Your task to perform on an android device: Clear all items from cart on ebay.com. Add "usb-b" to the cart on ebay.com, then select checkout. Image 0: 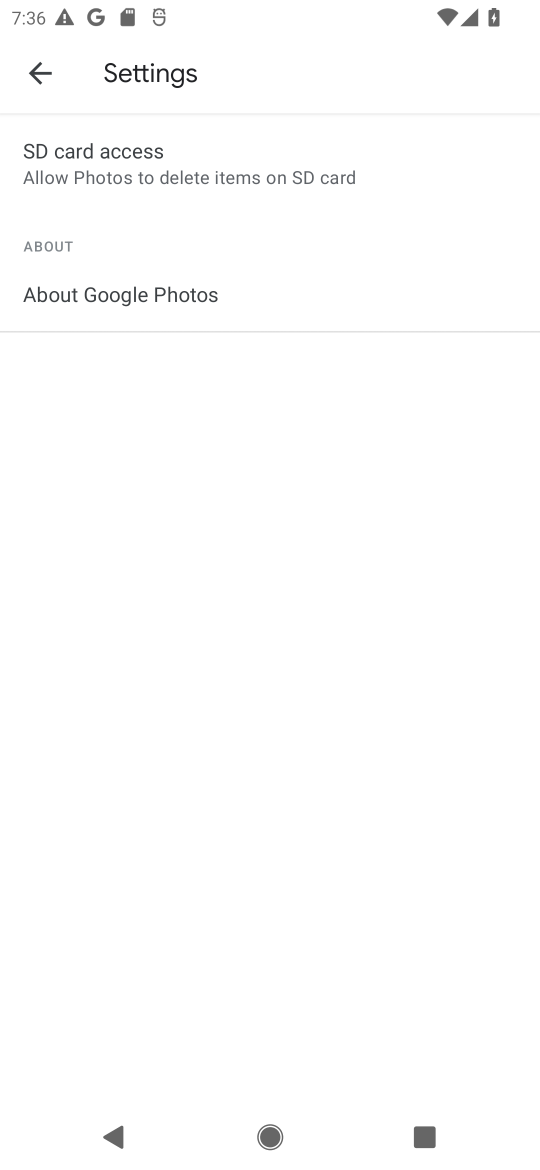
Step 0: press home button
Your task to perform on an android device: Clear all items from cart on ebay.com. Add "usb-b" to the cart on ebay.com, then select checkout. Image 1: 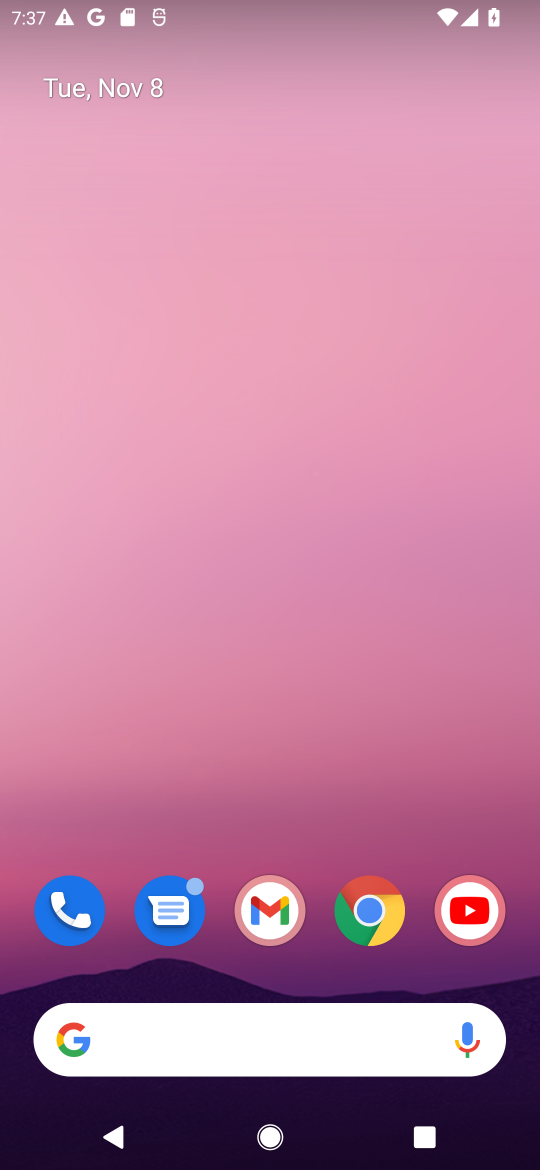
Step 1: click (378, 931)
Your task to perform on an android device: Clear all items from cart on ebay.com. Add "usb-b" to the cart on ebay.com, then select checkout. Image 2: 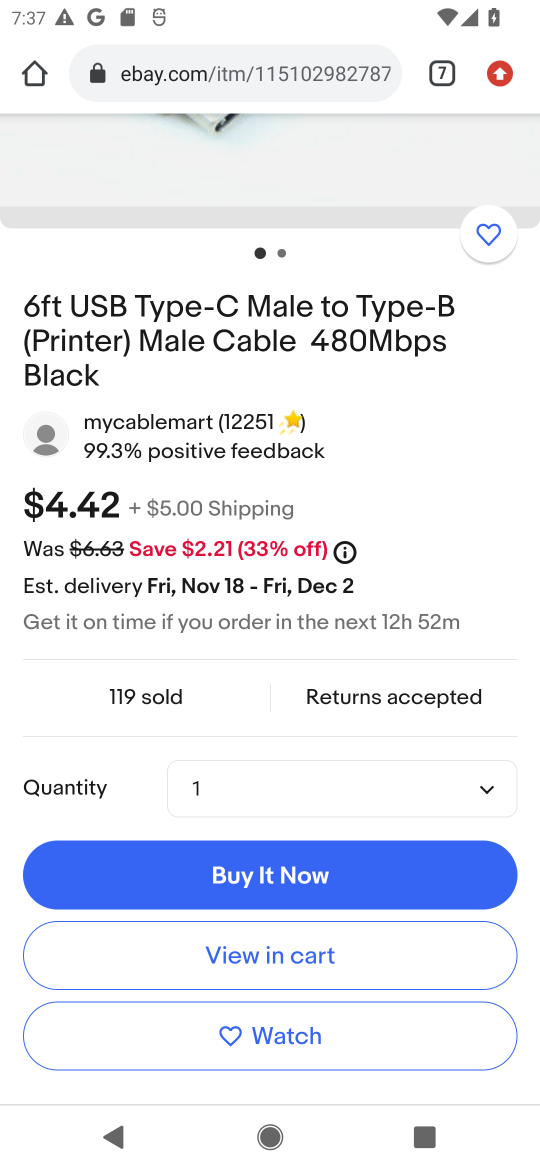
Step 2: drag from (336, 262) to (317, 791)
Your task to perform on an android device: Clear all items from cart on ebay.com. Add "usb-b" to the cart on ebay.com, then select checkout. Image 3: 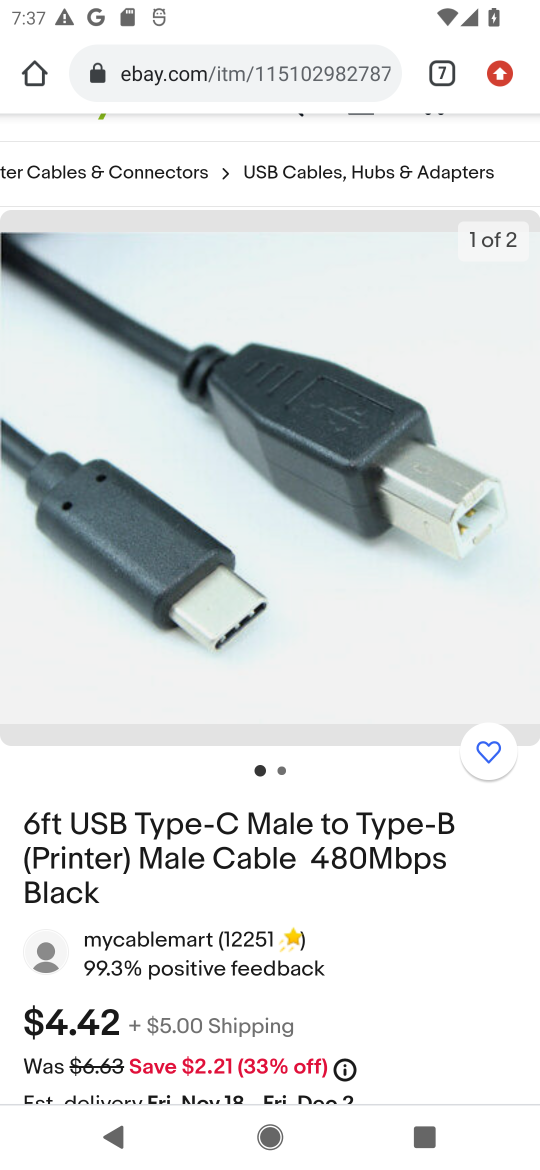
Step 3: drag from (361, 272) to (365, 822)
Your task to perform on an android device: Clear all items from cart on ebay.com. Add "usb-b" to the cart on ebay.com, then select checkout. Image 4: 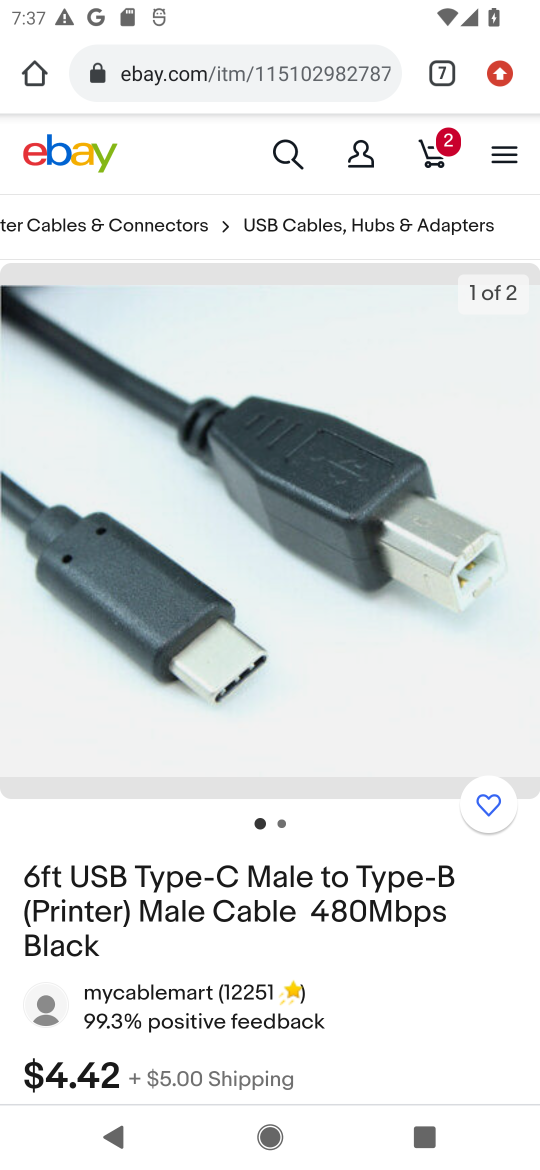
Step 4: click (294, 152)
Your task to perform on an android device: Clear all items from cart on ebay.com. Add "usb-b" to the cart on ebay.com, then select checkout. Image 5: 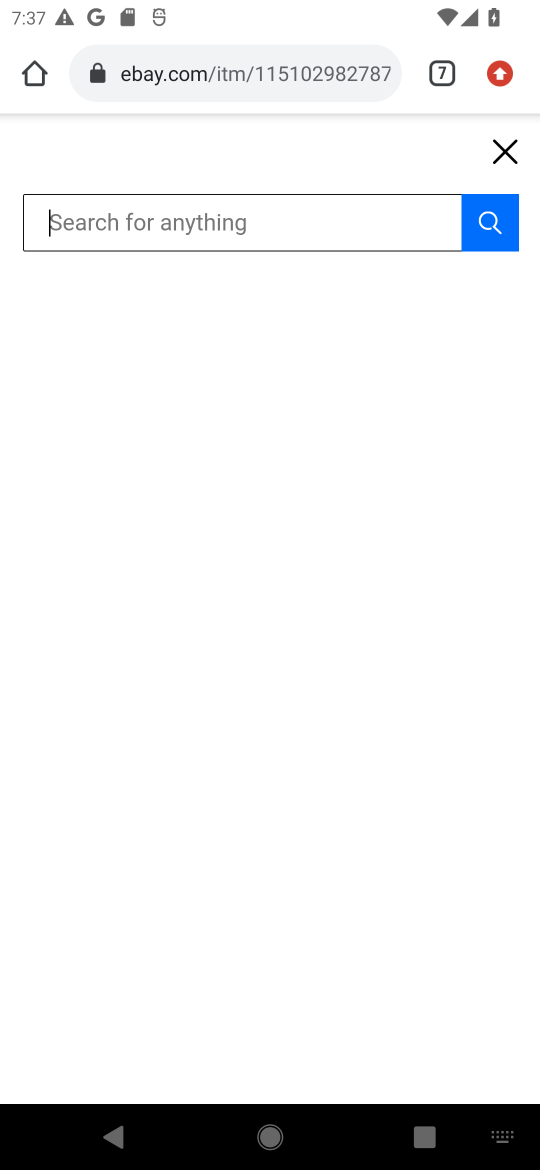
Step 5: type "usb-b"
Your task to perform on an android device: Clear all items from cart on ebay.com. Add "usb-b" to the cart on ebay.com, then select checkout. Image 6: 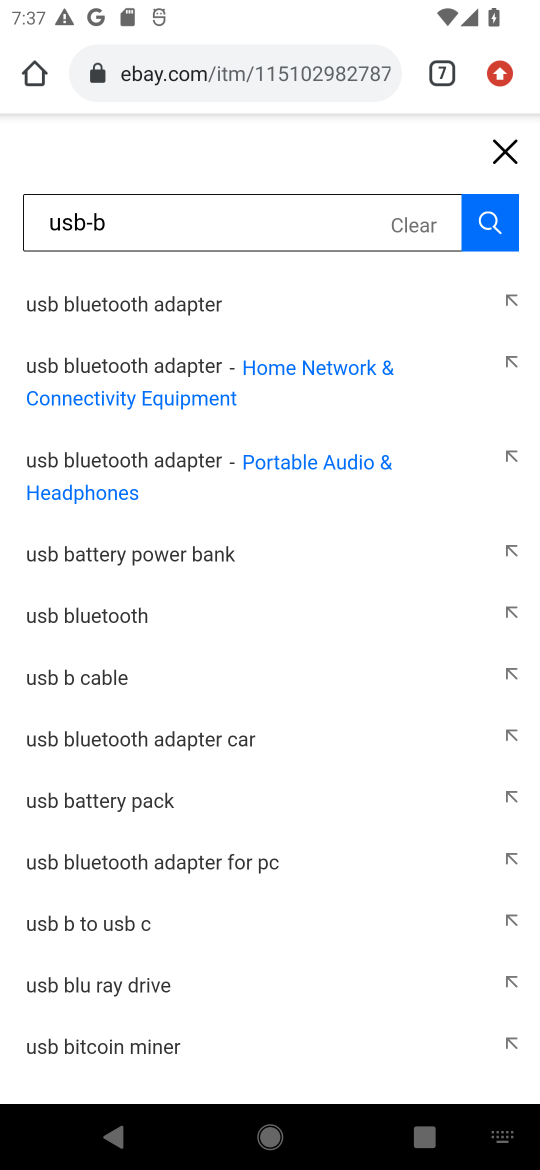
Step 6: click (103, 361)
Your task to perform on an android device: Clear all items from cart on ebay.com. Add "usb-b" to the cart on ebay.com, then select checkout. Image 7: 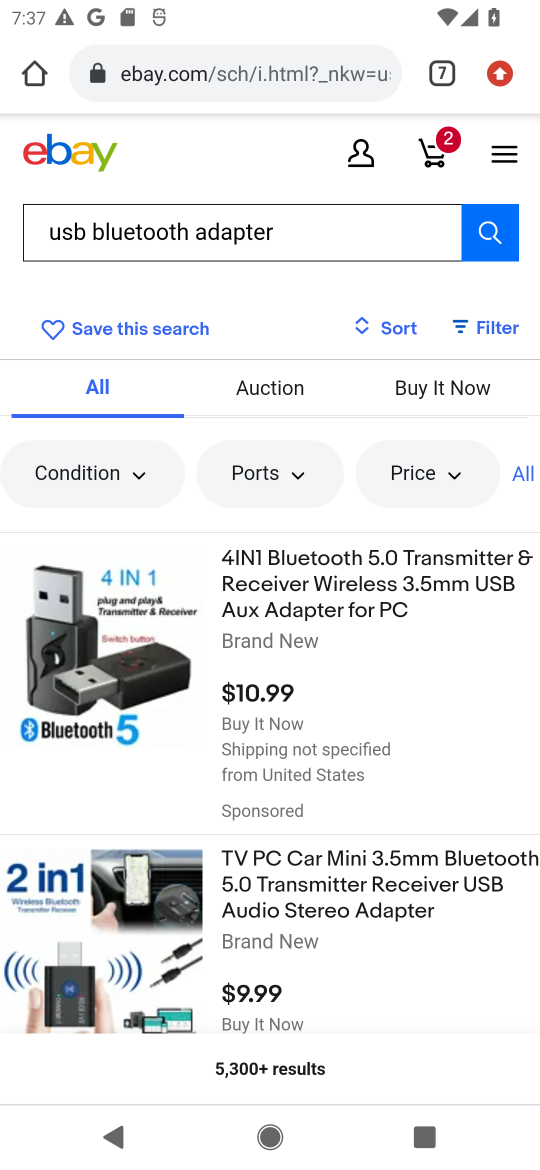
Step 7: click (305, 603)
Your task to perform on an android device: Clear all items from cart on ebay.com. Add "usb-b" to the cart on ebay.com, then select checkout. Image 8: 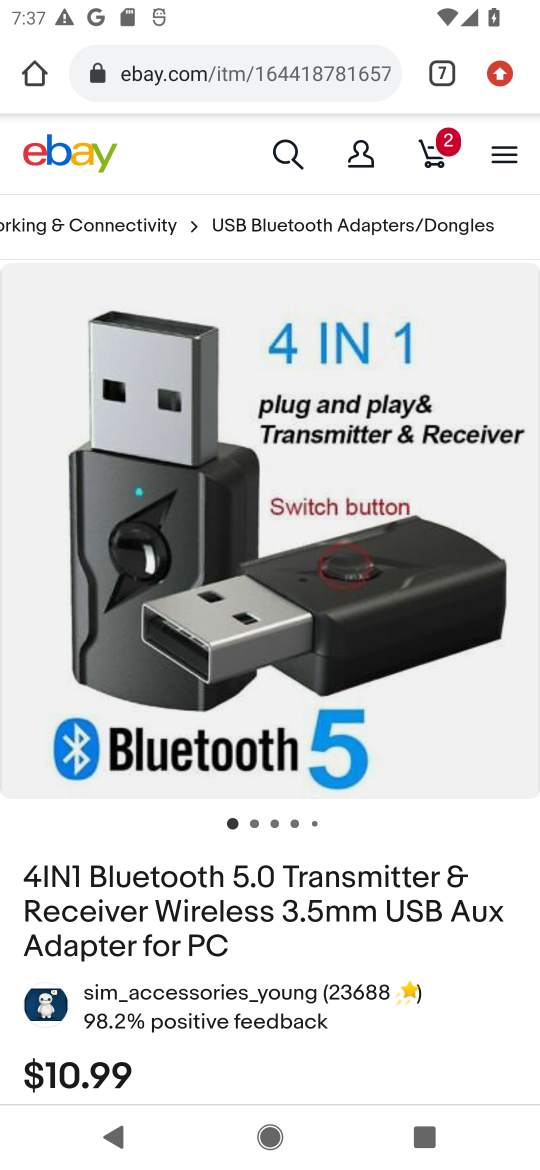
Step 8: drag from (352, 992) to (400, 494)
Your task to perform on an android device: Clear all items from cart on ebay.com. Add "usb-b" to the cart on ebay.com, then select checkout. Image 9: 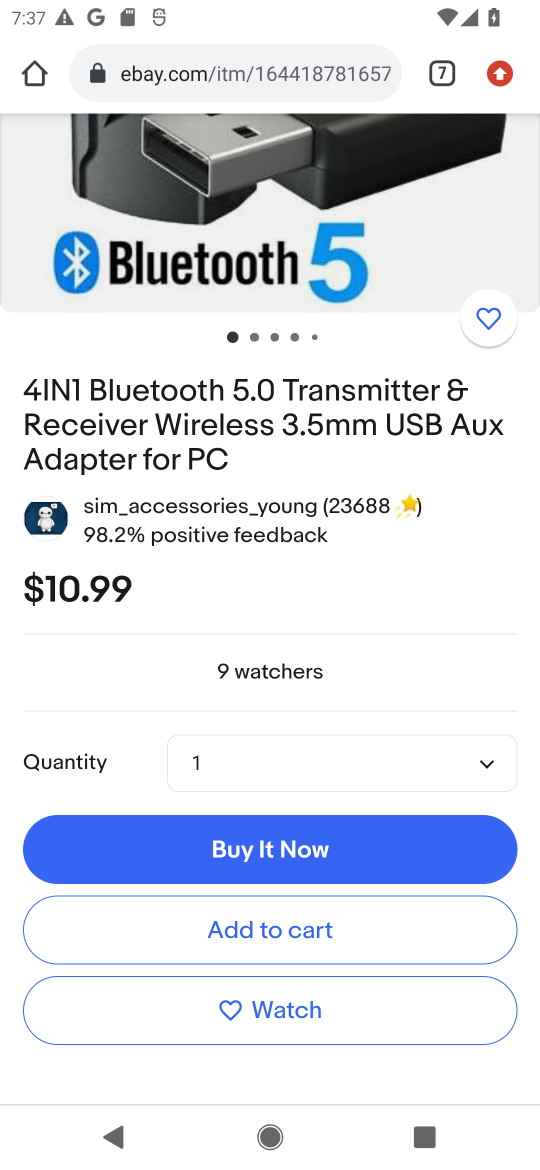
Step 9: click (284, 929)
Your task to perform on an android device: Clear all items from cart on ebay.com. Add "usb-b" to the cart on ebay.com, then select checkout. Image 10: 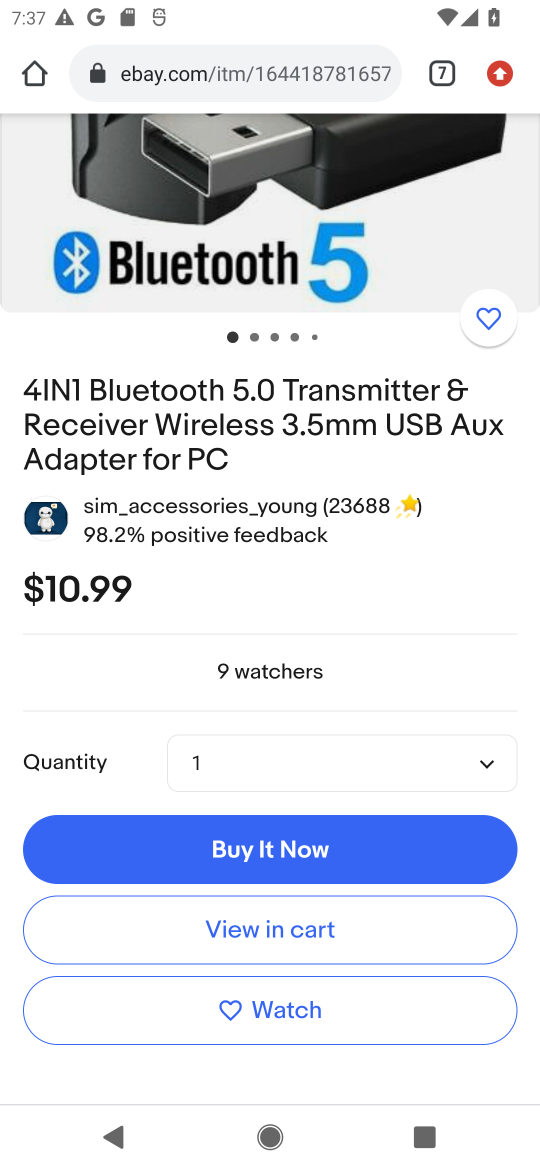
Step 10: click (284, 929)
Your task to perform on an android device: Clear all items from cart on ebay.com. Add "usb-b" to the cart on ebay.com, then select checkout. Image 11: 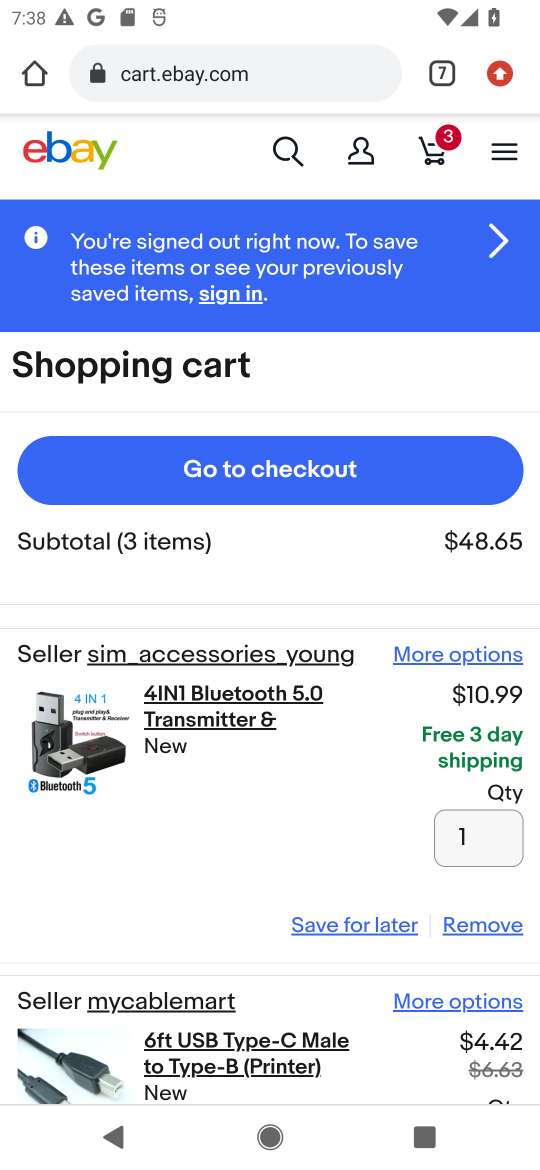
Step 11: drag from (253, 929) to (319, 359)
Your task to perform on an android device: Clear all items from cart on ebay.com. Add "usb-b" to the cart on ebay.com, then select checkout. Image 12: 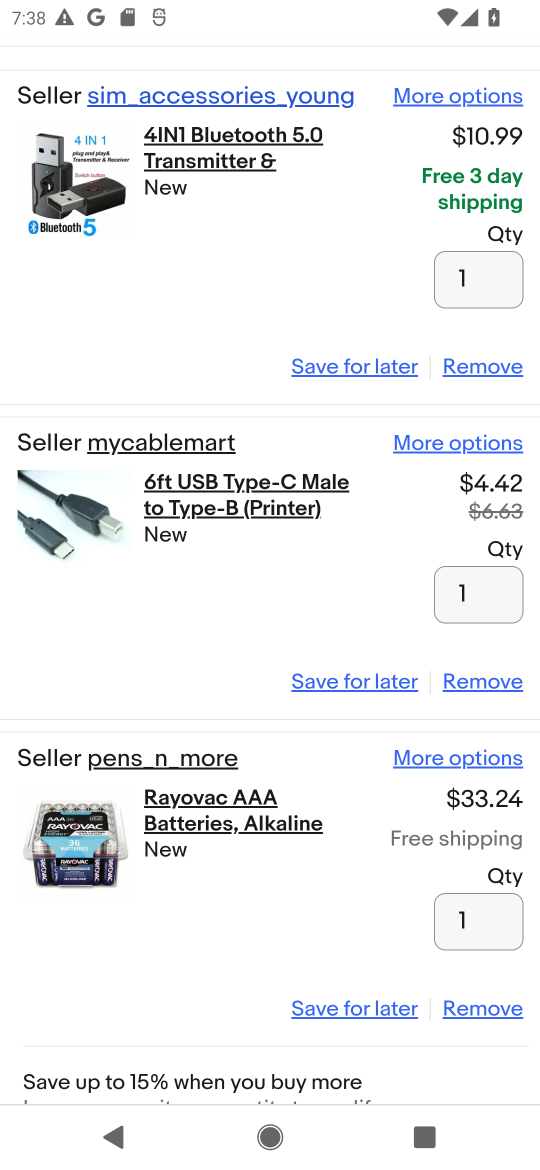
Step 12: click (486, 673)
Your task to perform on an android device: Clear all items from cart on ebay.com. Add "usb-b" to the cart on ebay.com, then select checkout. Image 13: 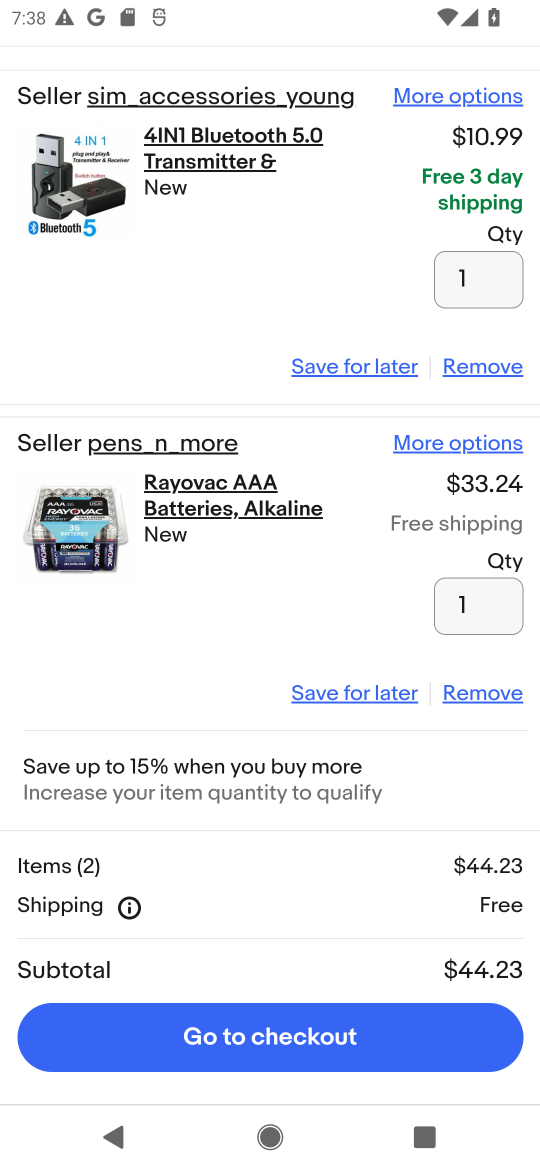
Step 13: click (485, 695)
Your task to perform on an android device: Clear all items from cart on ebay.com. Add "usb-b" to the cart on ebay.com, then select checkout. Image 14: 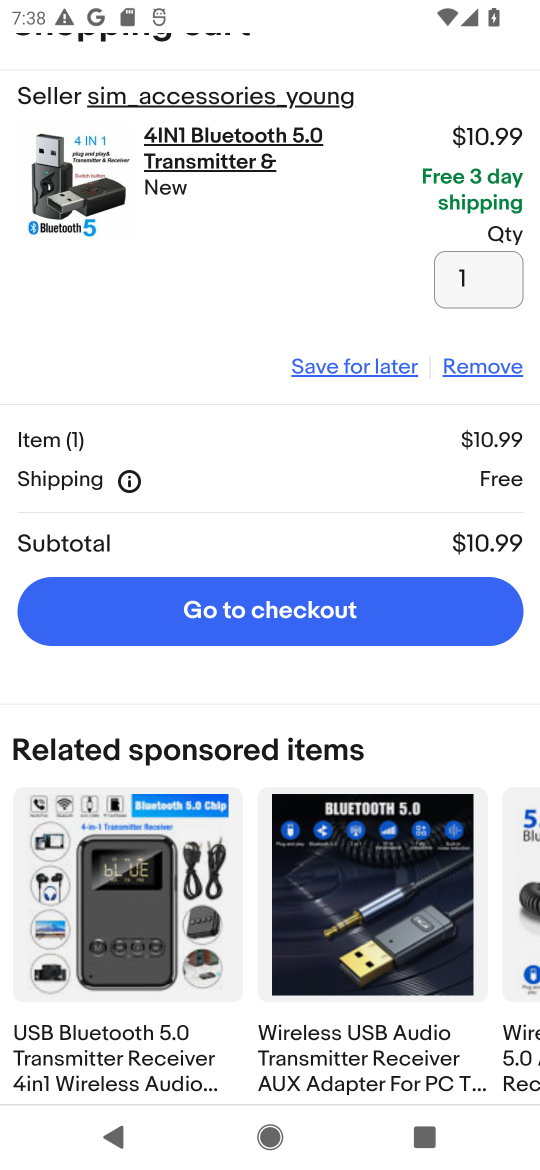
Step 14: click (360, 627)
Your task to perform on an android device: Clear all items from cart on ebay.com. Add "usb-b" to the cart on ebay.com, then select checkout. Image 15: 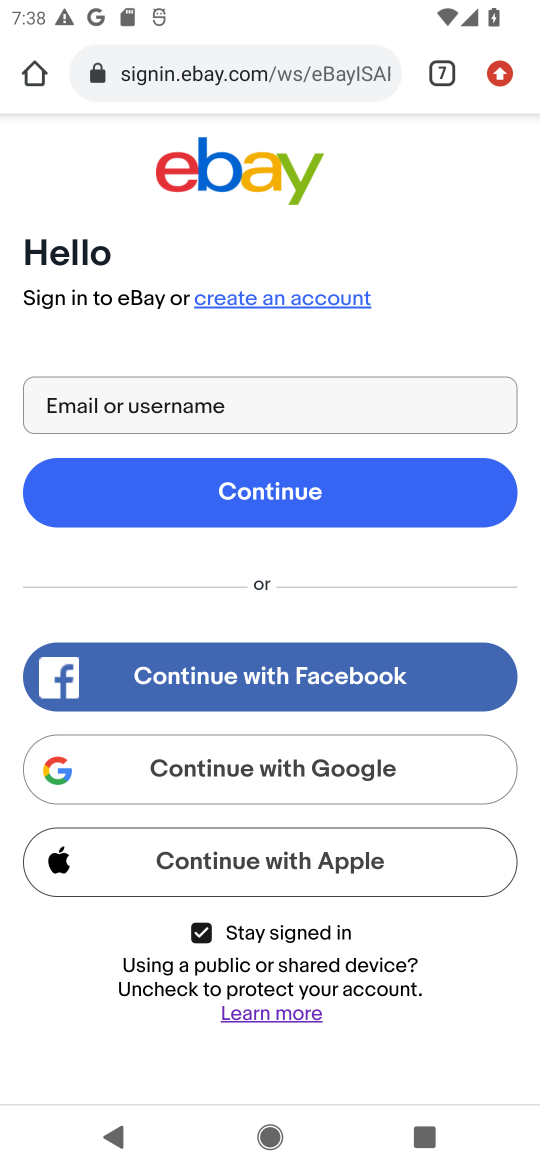
Step 15: task complete